Your task to perform on an android device: make emails show in primary in the gmail app Image 0: 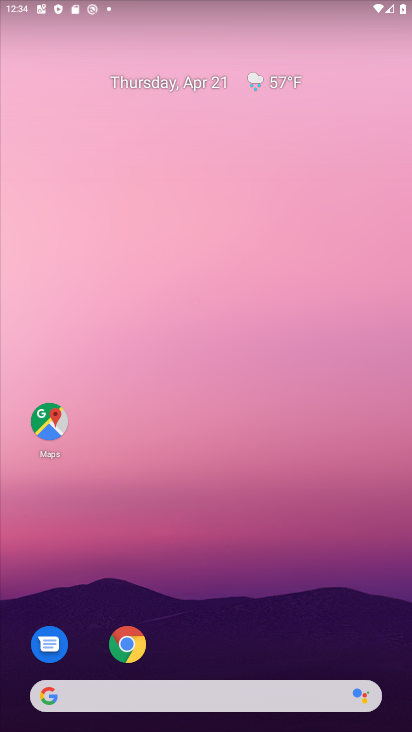
Step 0: drag from (215, 672) to (144, 44)
Your task to perform on an android device: make emails show in primary in the gmail app Image 1: 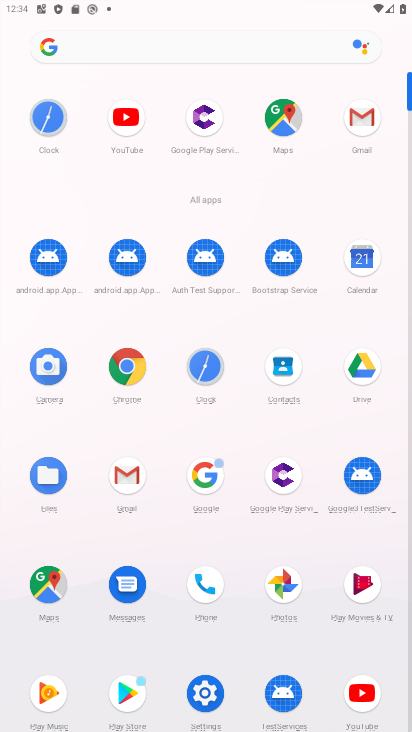
Step 1: click (119, 486)
Your task to perform on an android device: make emails show in primary in the gmail app Image 2: 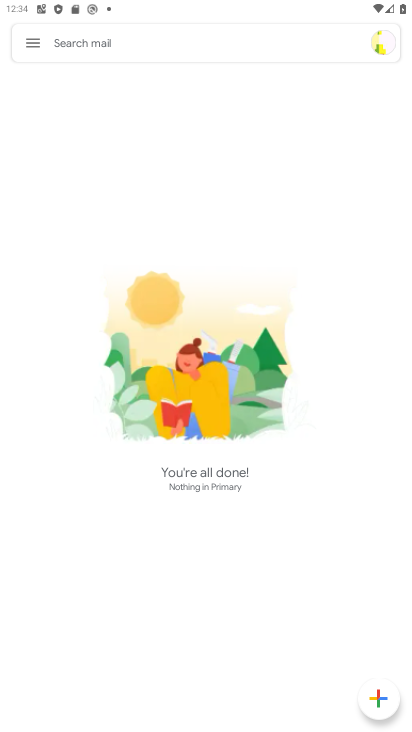
Step 2: task complete